Your task to perform on an android device: Open calendar and show me the third week of next month Image 0: 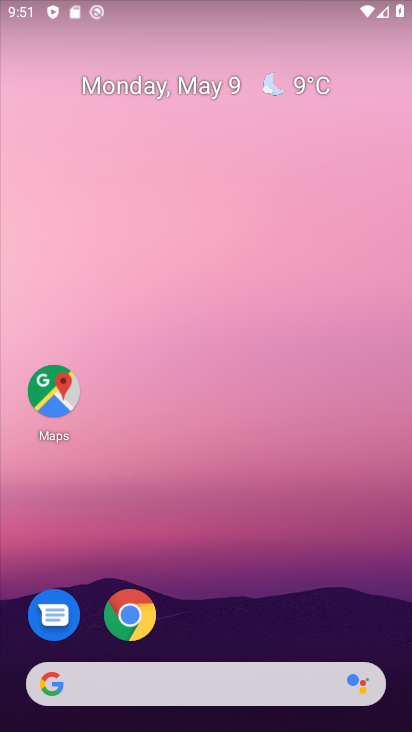
Step 0: drag from (230, 600) to (235, 203)
Your task to perform on an android device: Open calendar and show me the third week of next month Image 1: 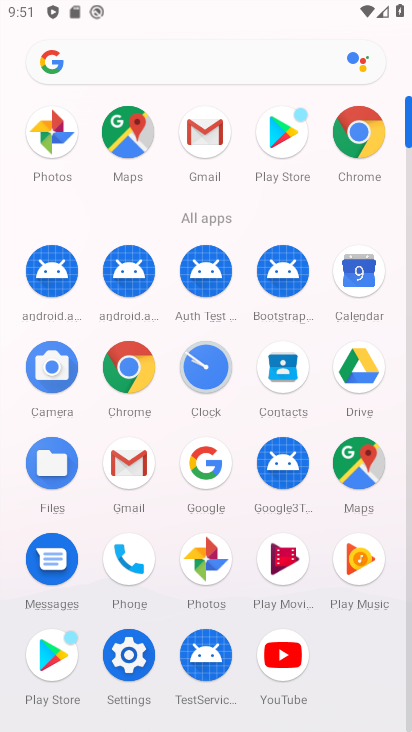
Step 1: click (346, 281)
Your task to perform on an android device: Open calendar and show me the third week of next month Image 2: 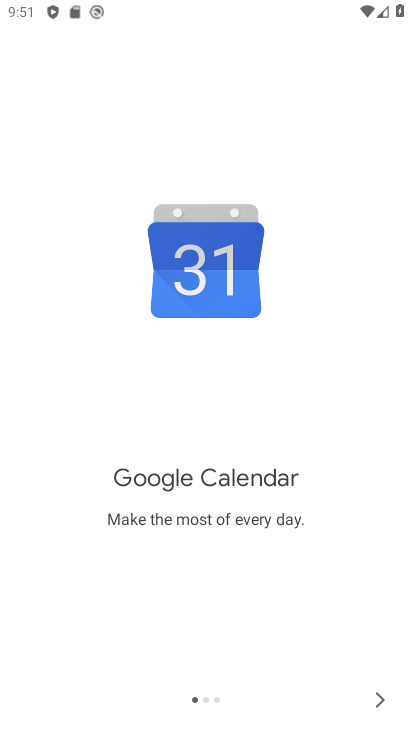
Step 2: click (362, 700)
Your task to perform on an android device: Open calendar and show me the third week of next month Image 3: 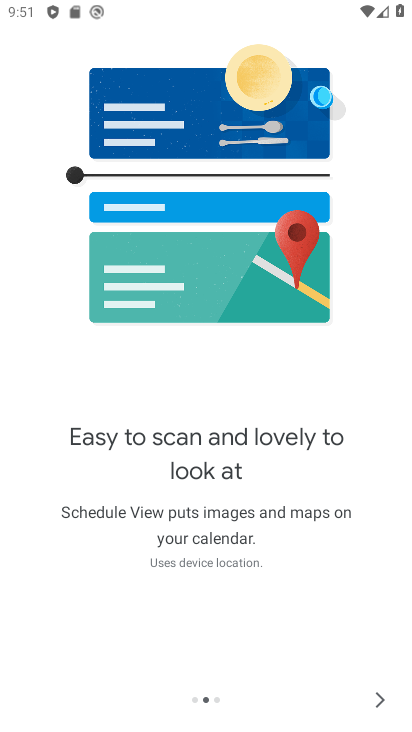
Step 3: click (376, 699)
Your task to perform on an android device: Open calendar and show me the third week of next month Image 4: 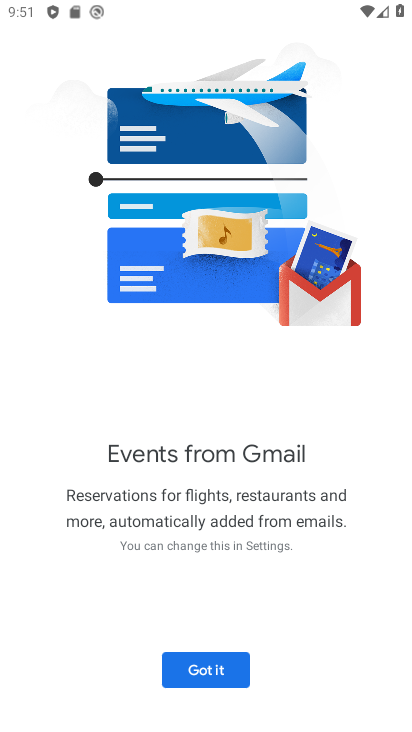
Step 4: click (376, 699)
Your task to perform on an android device: Open calendar and show me the third week of next month Image 5: 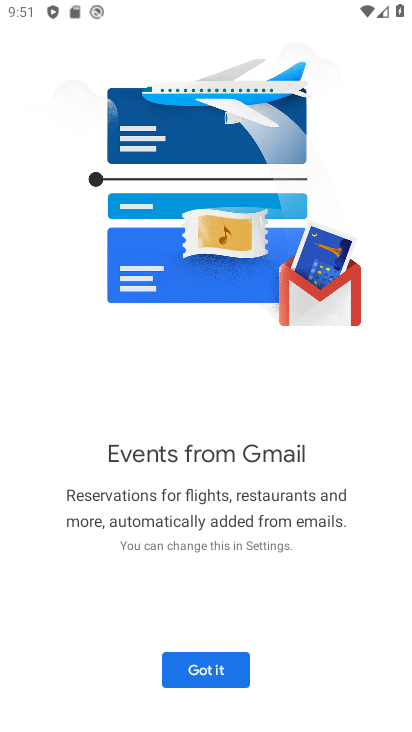
Step 5: click (212, 665)
Your task to perform on an android device: Open calendar and show me the third week of next month Image 6: 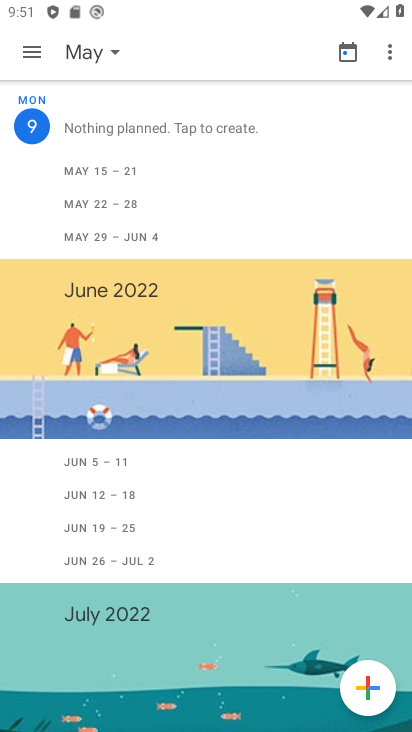
Step 6: click (73, 52)
Your task to perform on an android device: Open calendar and show me the third week of next month Image 7: 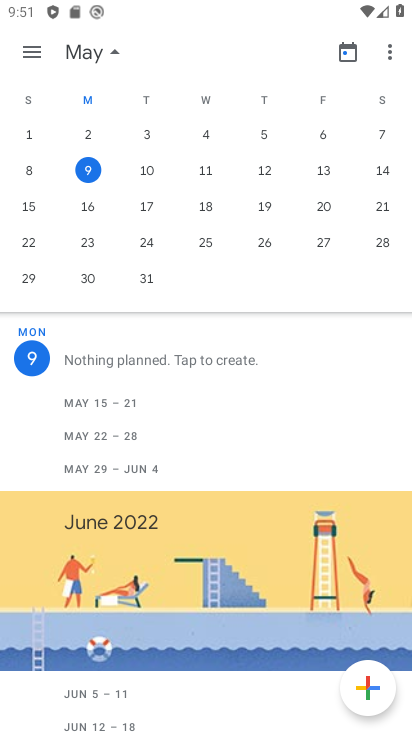
Step 7: drag from (372, 246) to (3, 235)
Your task to perform on an android device: Open calendar and show me the third week of next month Image 8: 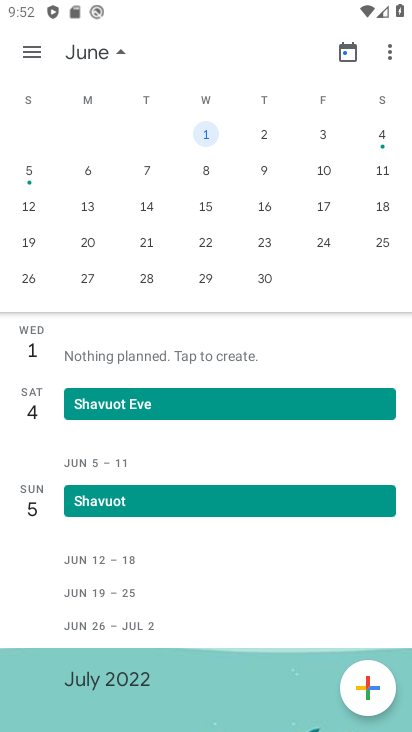
Step 8: click (25, 202)
Your task to perform on an android device: Open calendar and show me the third week of next month Image 9: 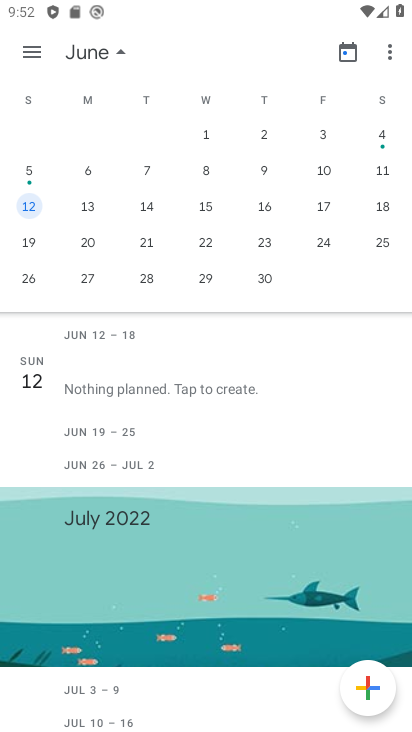
Step 9: click (87, 209)
Your task to perform on an android device: Open calendar and show me the third week of next month Image 10: 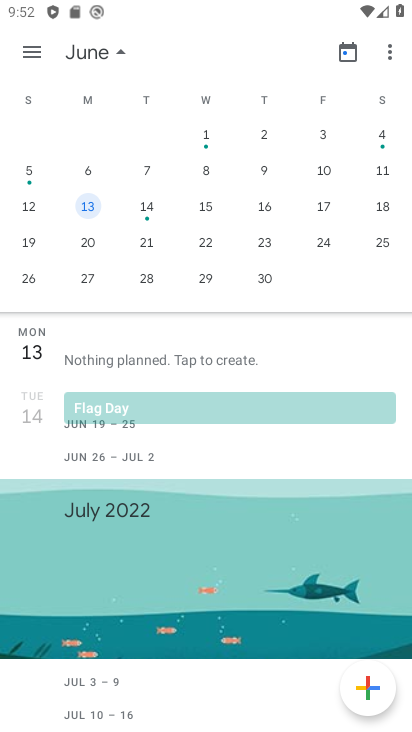
Step 10: click (141, 213)
Your task to perform on an android device: Open calendar and show me the third week of next month Image 11: 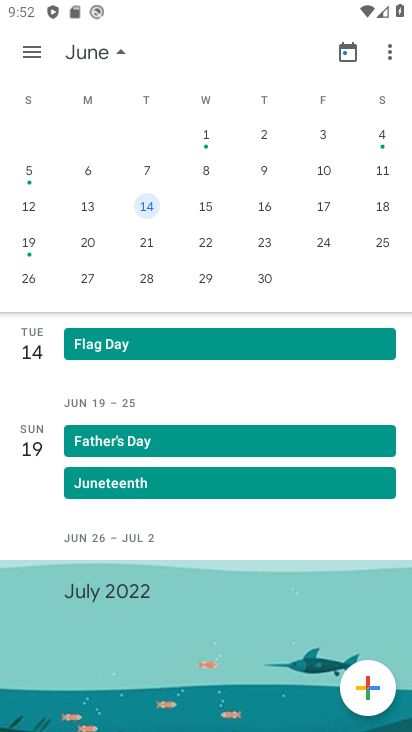
Step 11: click (205, 210)
Your task to perform on an android device: Open calendar and show me the third week of next month Image 12: 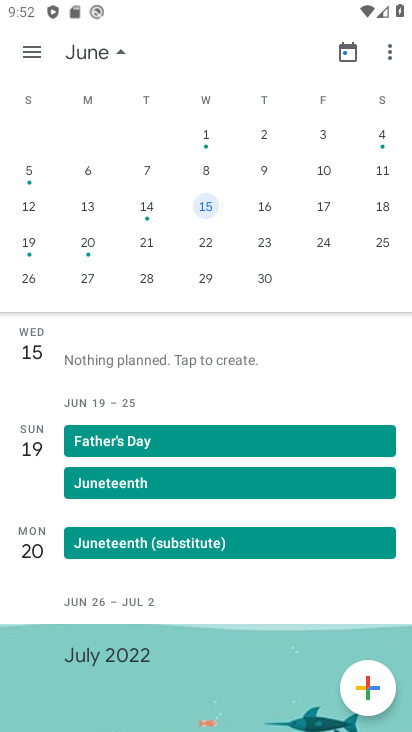
Step 12: click (271, 210)
Your task to perform on an android device: Open calendar and show me the third week of next month Image 13: 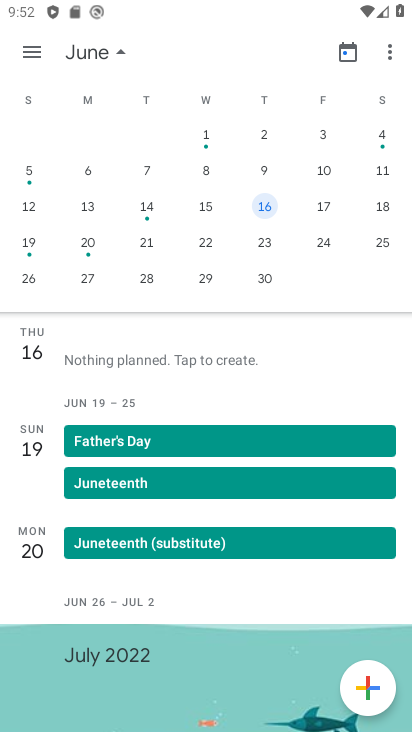
Step 13: click (319, 212)
Your task to perform on an android device: Open calendar and show me the third week of next month Image 14: 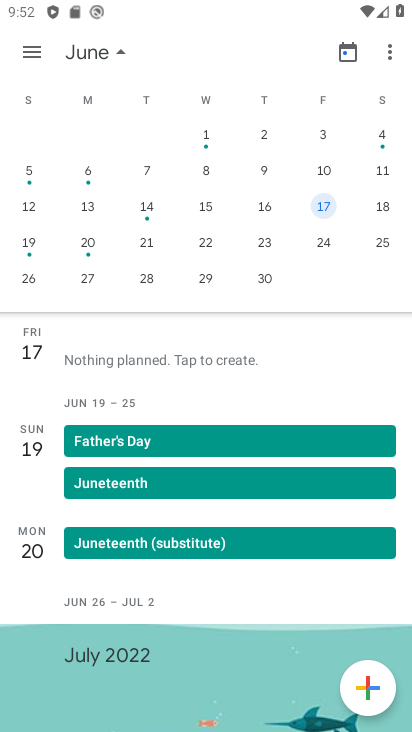
Step 14: click (385, 208)
Your task to perform on an android device: Open calendar and show me the third week of next month Image 15: 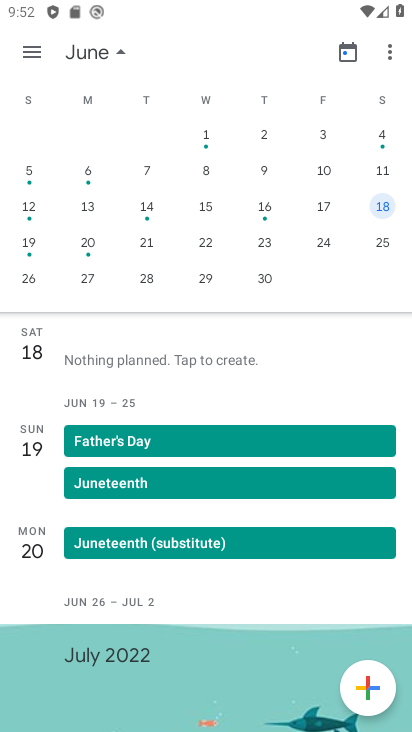
Step 15: task complete